Your task to perform on an android device: turn on priority inbox in the gmail app Image 0: 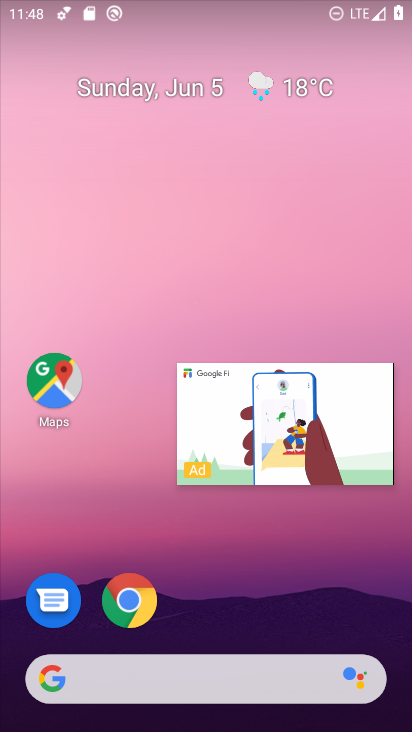
Step 0: click (355, 405)
Your task to perform on an android device: turn on priority inbox in the gmail app Image 1: 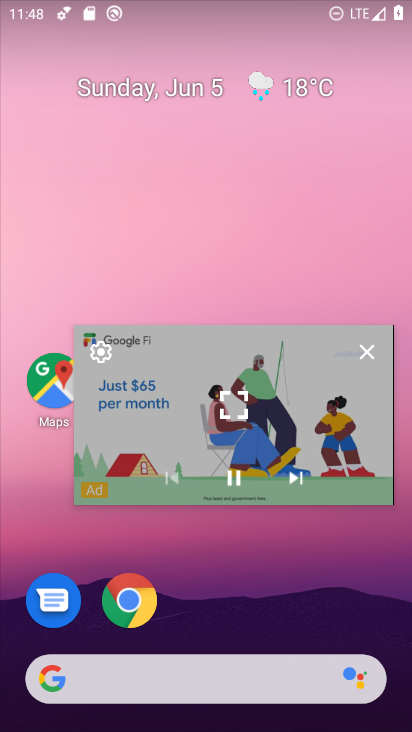
Step 1: click (360, 346)
Your task to perform on an android device: turn on priority inbox in the gmail app Image 2: 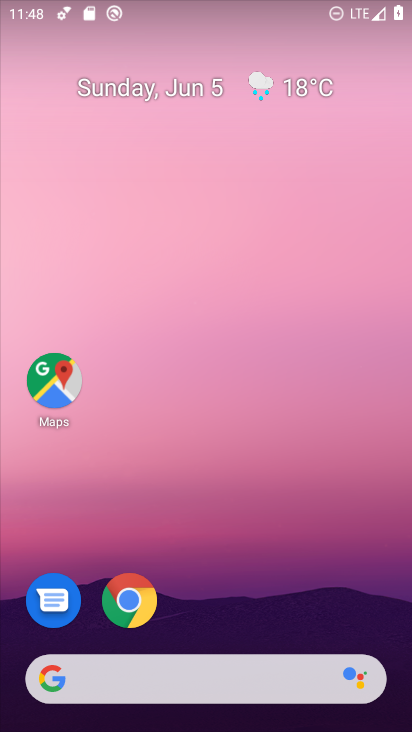
Step 2: drag from (212, 611) to (231, 343)
Your task to perform on an android device: turn on priority inbox in the gmail app Image 3: 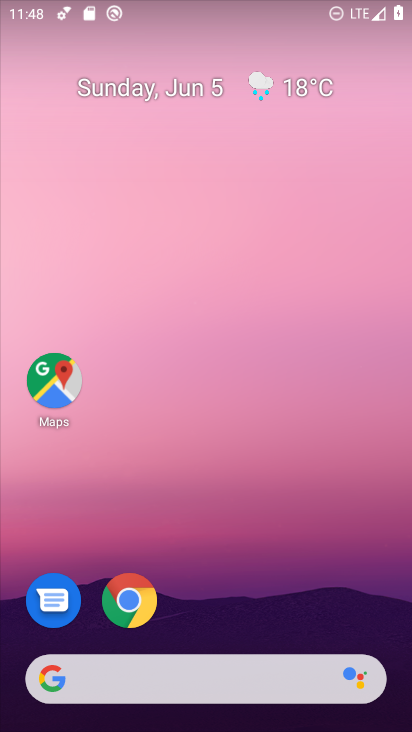
Step 3: drag from (201, 623) to (202, 146)
Your task to perform on an android device: turn on priority inbox in the gmail app Image 4: 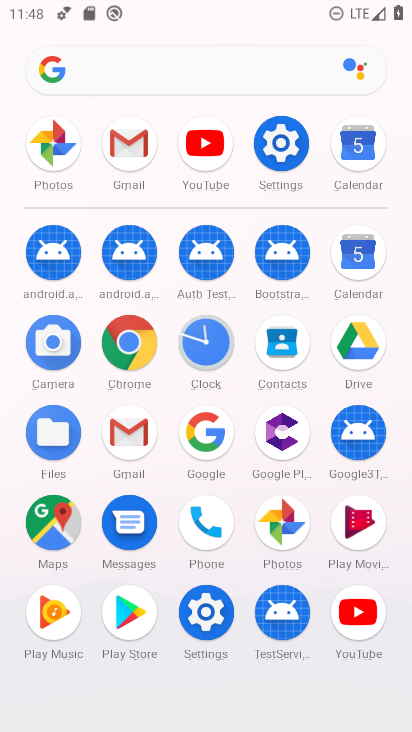
Step 4: click (127, 151)
Your task to perform on an android device: turn on priority inbox in the gmail app Image 5: 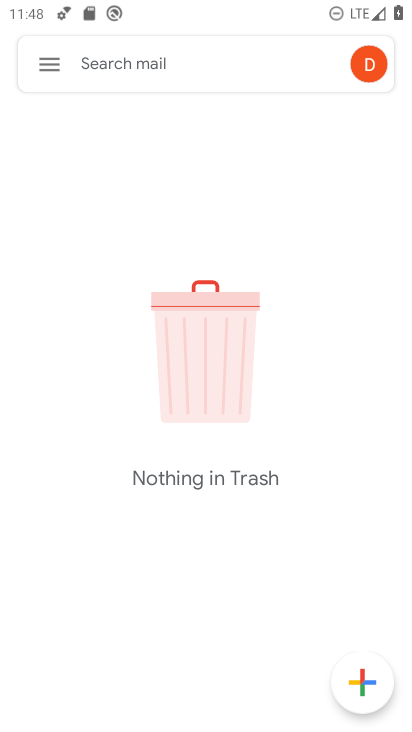
Step 5: click (42, 61)
Your task to perform on an android device: turn on priority inbox in the gmail app Image 6: 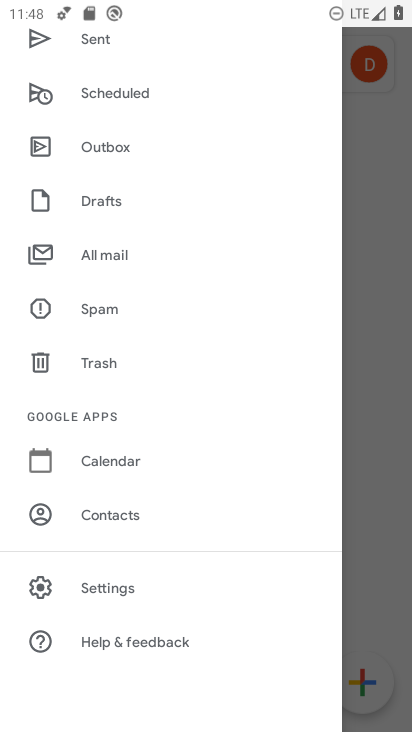
Step 6: click (129, 593)
Your task to perform on an android device: turn on priority inbox in the gmail app Image 7: 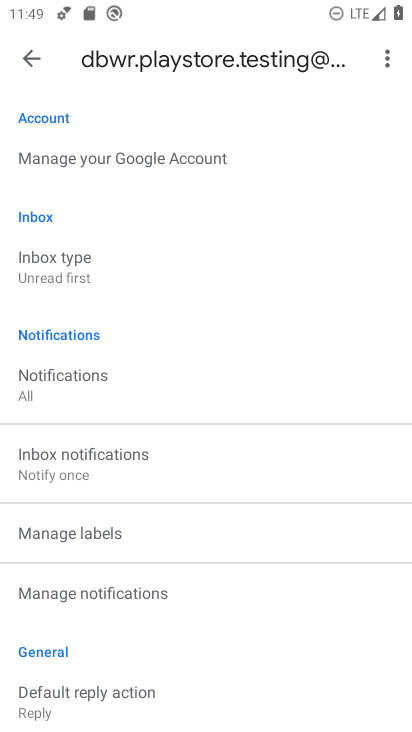
Step 7: click (82, 251)
Your task to perform on an android device: turn on priority inbox in the gmail app Image 8: 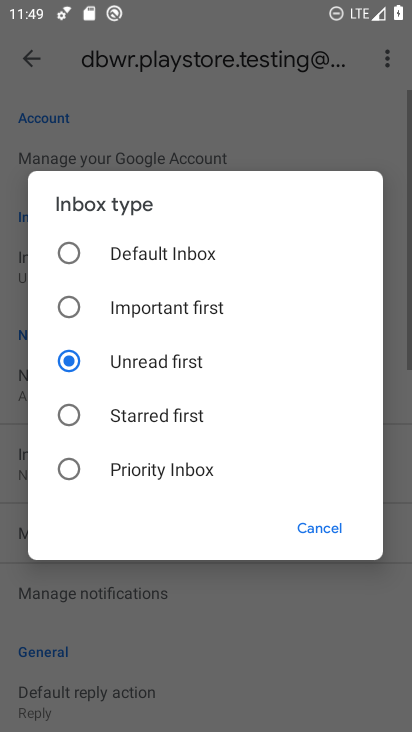
Step 8: click (142, 454)
Your task to perform on an android device: turn on priority inbox in the gmail app Image 9: 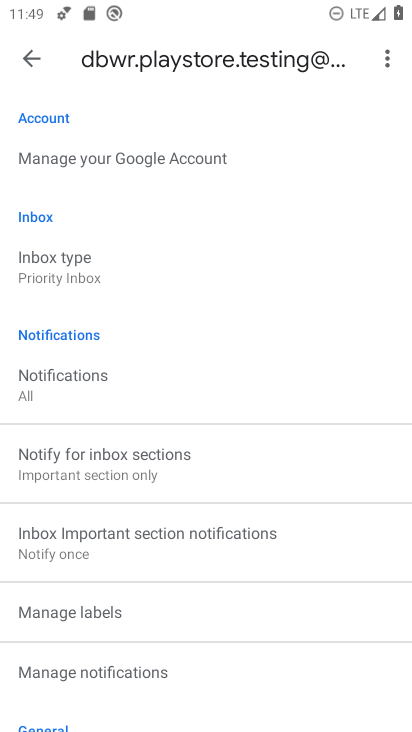
Step 9: task complete